Your task to perform on an android device: move an email to a new category in the gmail app Image 0: 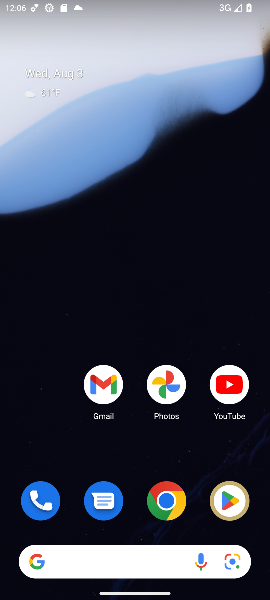
Step 0: press home button
Your task to perform on an android device: move an email to a new category in the gmail app Image 1: 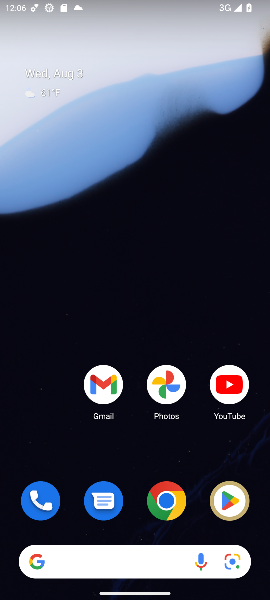
Step 1: click (110, 386)
Your task to perform on an android device: move an email to a new category in the gmail app Image 2: 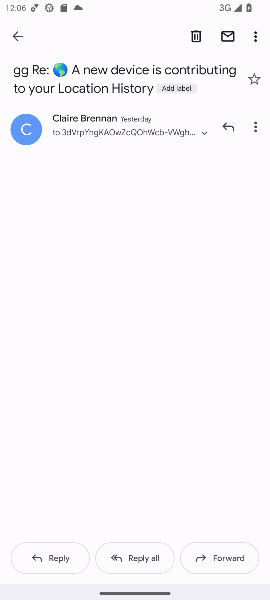
Step 2: click (252, 35)
Your task to perform on an android device: move an email to a new category in the gmail app Image 3: 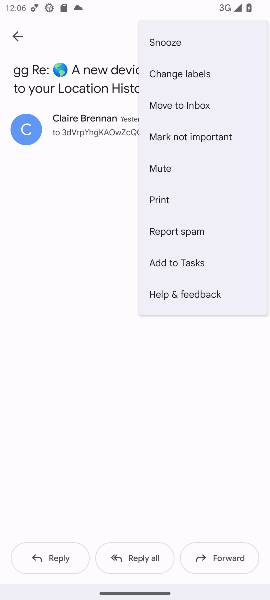
Step 3: click (203, 129)
Your task to perform on an android device: move an email to a new category in the gmail app Image 4: 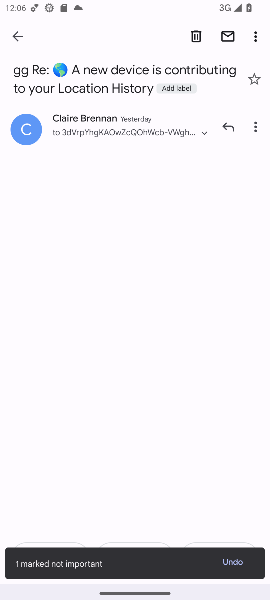
Step 4: task complete